Your task to perform on an android device: toggle priority inbox in the gmail app Image 0: 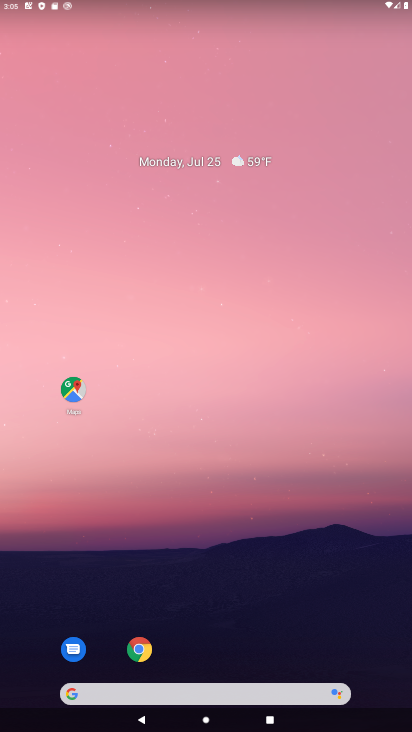
Step 0: drag from (229, 682) to (212, 144)
Your task to perform on an android device: toggle priority inbox in the gmail app Image 1: 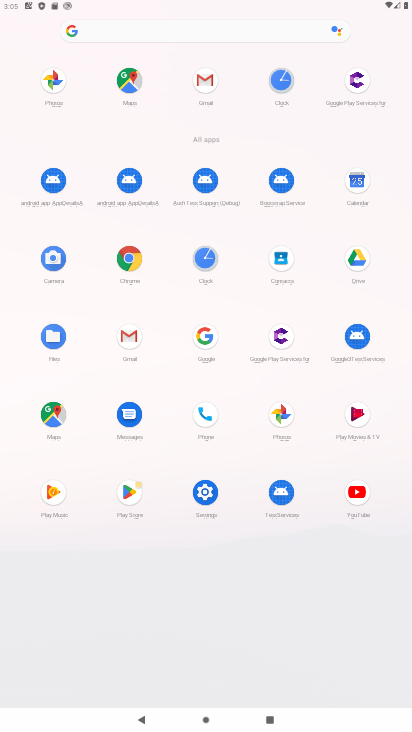
Step 1: click (199, 82)
Your task to perform on an android device: toggle priority inbox in the gmail app Image 2: 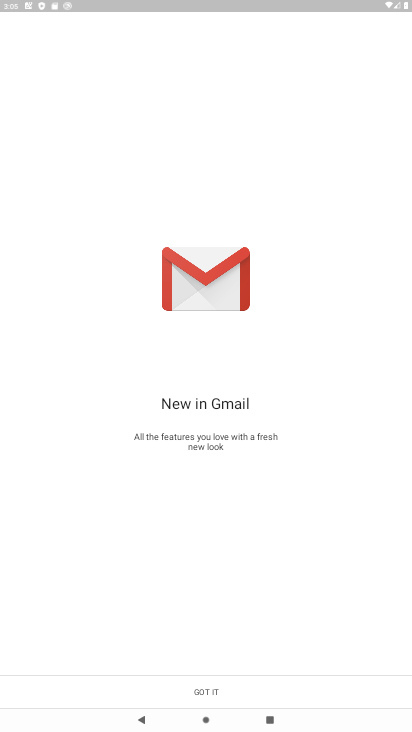
Step 2: click (222, 686)
Your task to perform on an android device: toggle priority inbox in the gmail app Image 3: 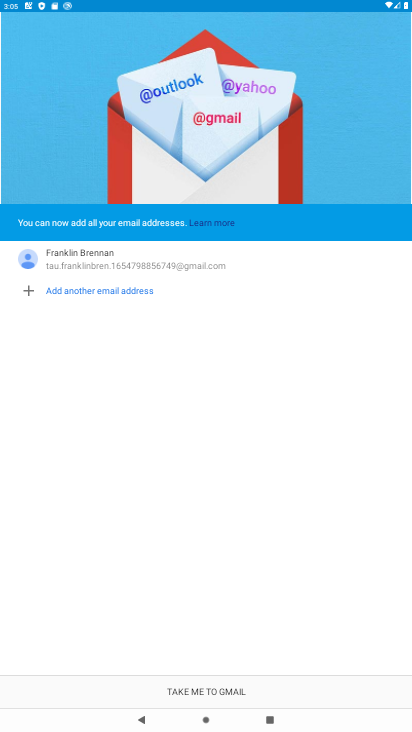
Step 3: click (222, 688)
Your task to perform on an android device: toggle priority inbox in the gmail app Image 4: 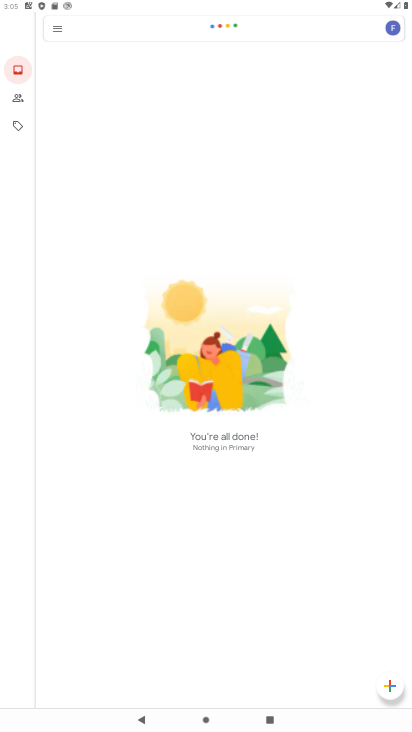
Step 4: click (55, 31)
Your task to perform on an android device: toggle priority inbox in the gmail app Image 5: 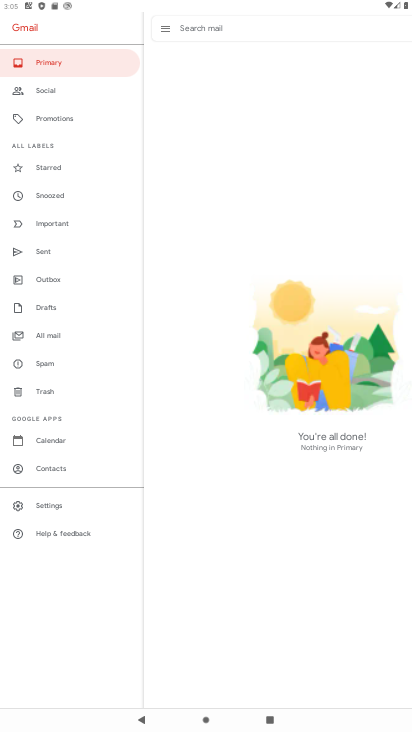
Step 5: click (79, 508)
Your task to perform on an android device: toggle priority inbox in the gmail app Image 6: 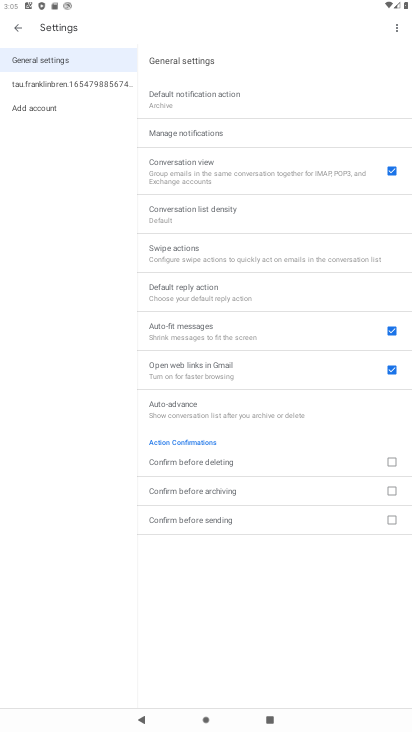
Step 6: click (98, 91)
Your task to perform on an android device: toggle priority inbox in the gmail app Image 7: 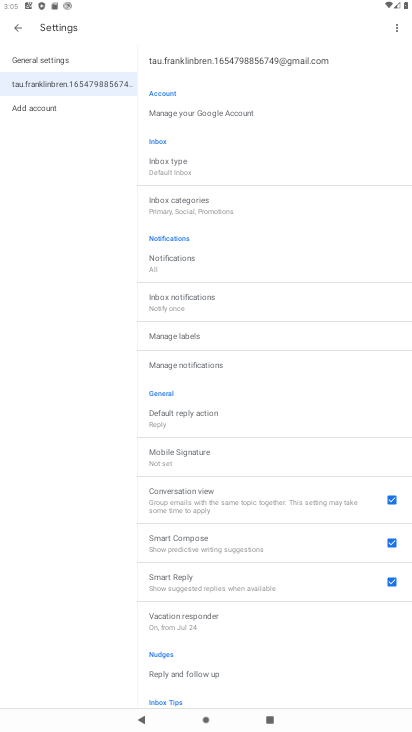
Step 7: click (174, 169)
Your task to perform on an android device: toggle priority inbox in the gmail app Image 8: 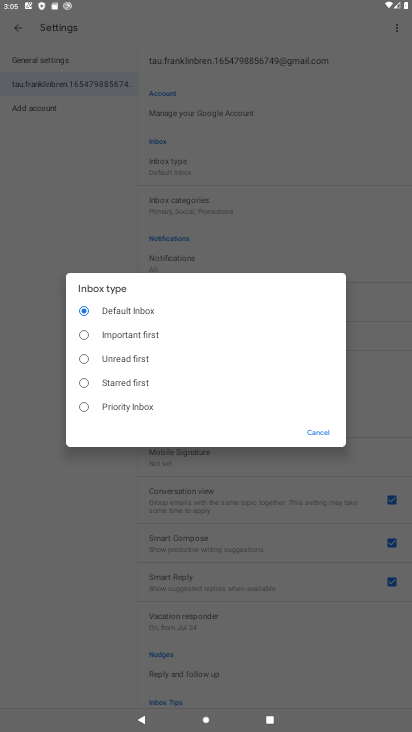
Step 8: click (124, 407)
Your task to perform on an android device: toggle priority inbox in the gmail app Image 9: 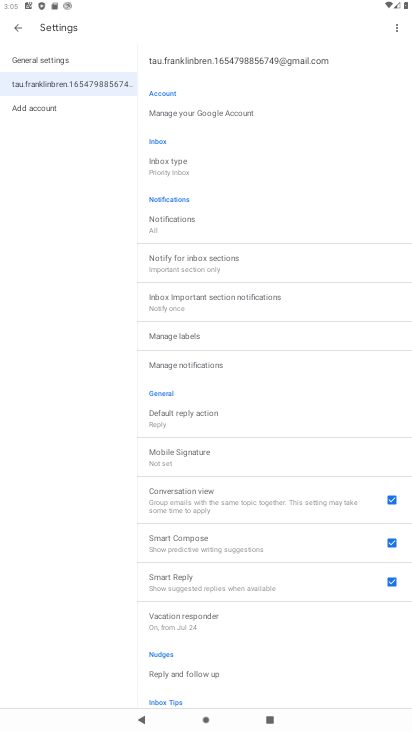
Step 9: task complete